Your task to perform on an android device: change timer sound Image 0: 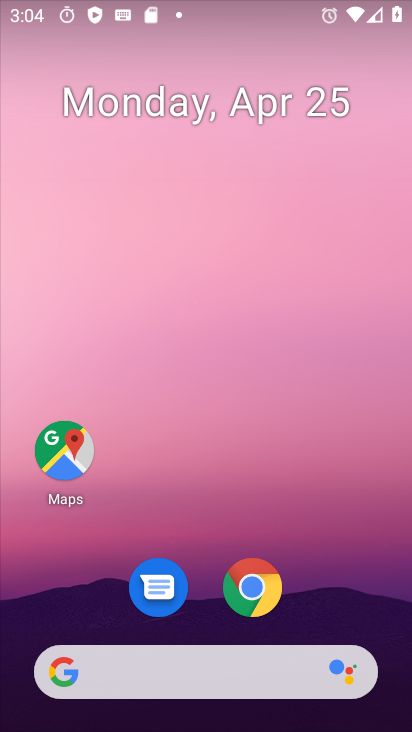
Step 0: drag from (342, 443) to (217, 124)
Your task to perform on an android device: change timer sound Image 1: 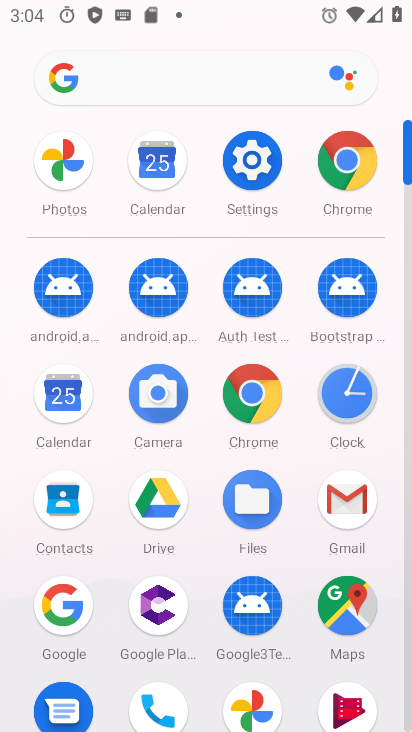
Step 1: click (351, 398)
Your task to perform on an android device: change timer sound Image 2: 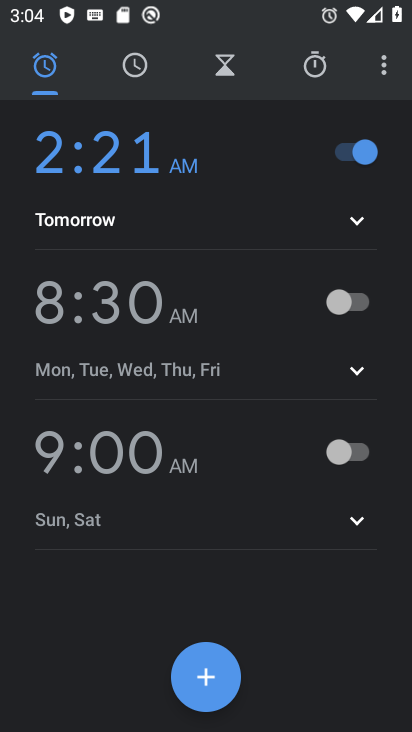
Step 2: click (385, 58)
Your task to perform on an android device: change timer sound Image 3: 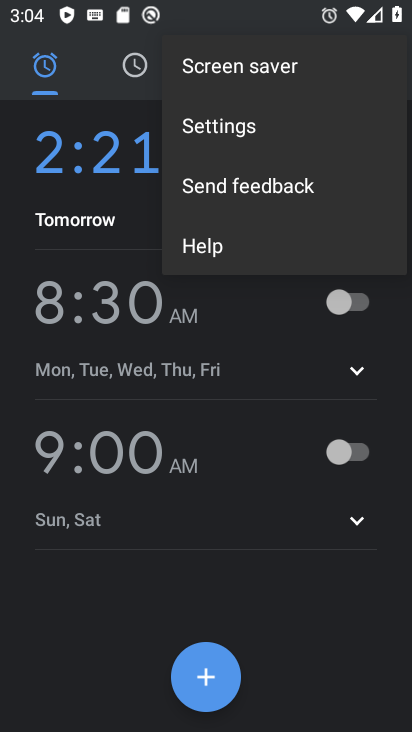
Step 3: click (229, 128)
Your task to perform on an android device: change timer sound Image 4: 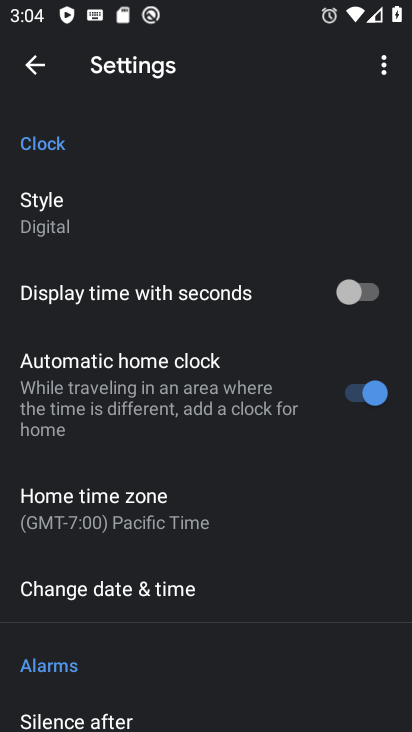
Step 4: drag from (238, 685) to (186, 163)
Your task to perform on an android device: change timer sound Image 5: 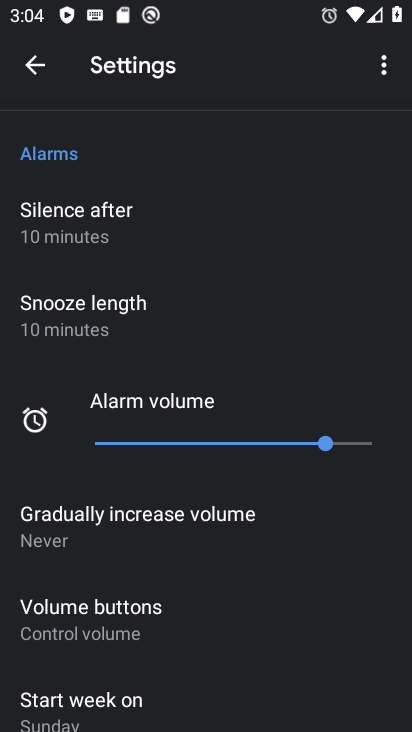
Step 5: drag from (248, 516) to (294, 194)
Your task to perform on an android device: change timer sound Image 6: 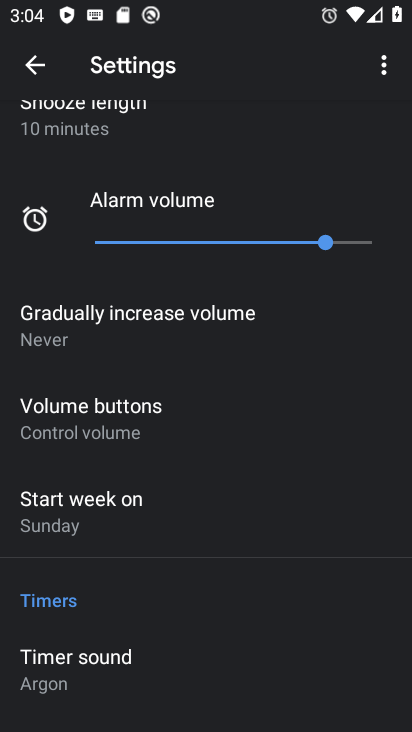
Step 6: click (114, 660)
Your task to perform on an android device: change timer sound Image 7: 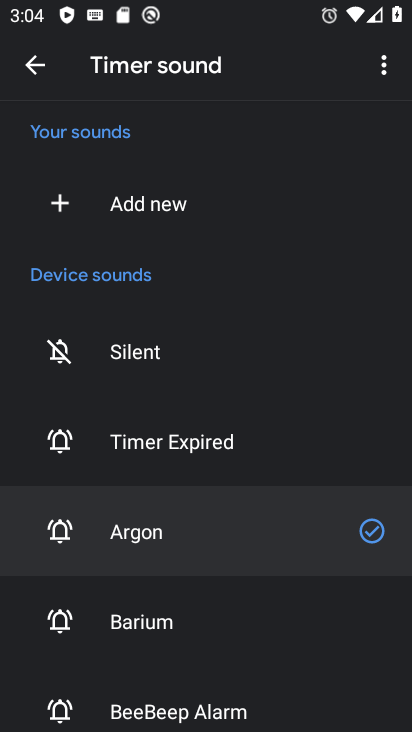
Step 7: click (212, 446)
Your task to perform on an android device: change timer sound Image 8: 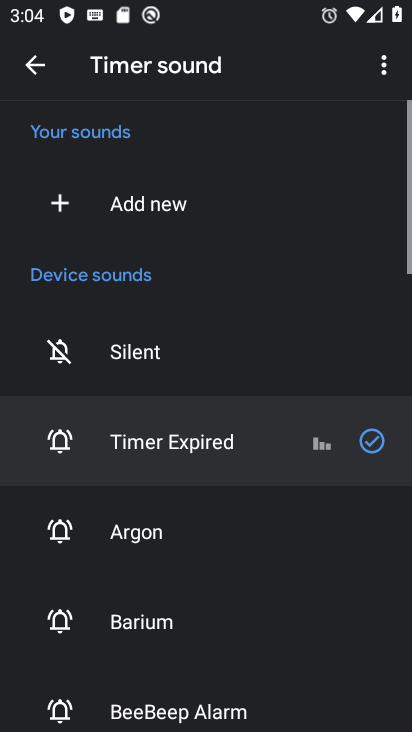
Step 8: task complete